Your task to perform on an android device: Open calendar and show me the fourth week of next month Image 0: 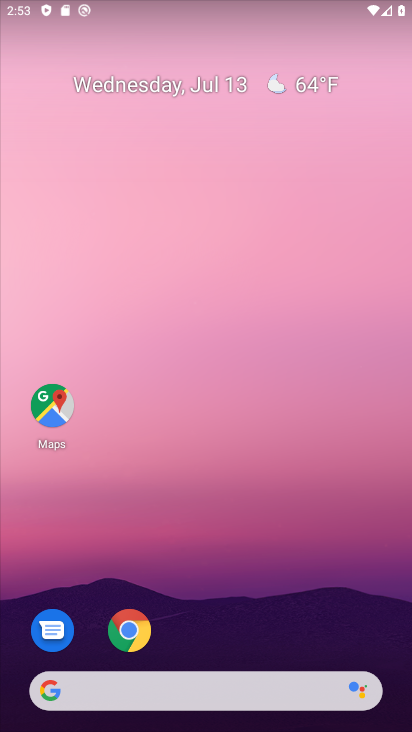
Step 0: drag from (258, 642) to (318, 114)
Your task to perform on an android device: Open calendar and show me the fourth week of next month Image 1: 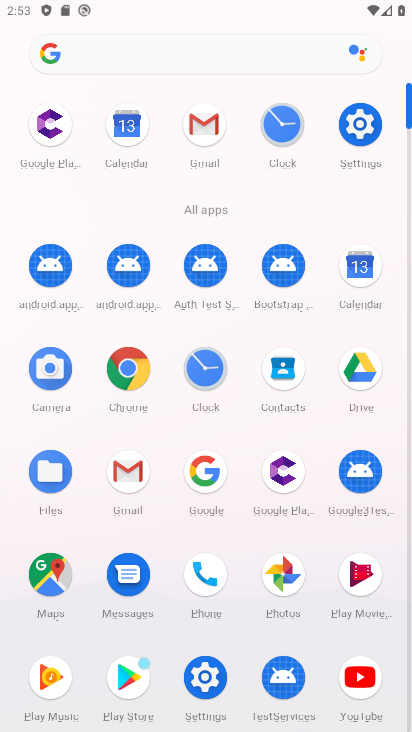
Step 1: click (350, 251)
Your task to perform on an android device: Open calendar and show me the fourth week of next month Image 2: 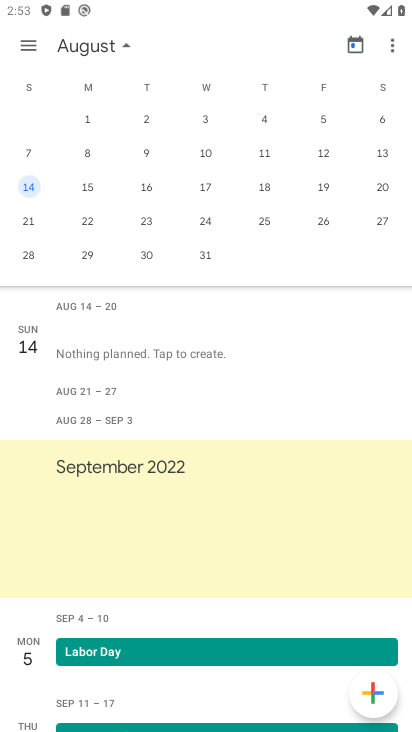
Step 2: click (33, 223)
Your task to perform on an android device: Open calendar and show me the fourth week of next month Image 3: 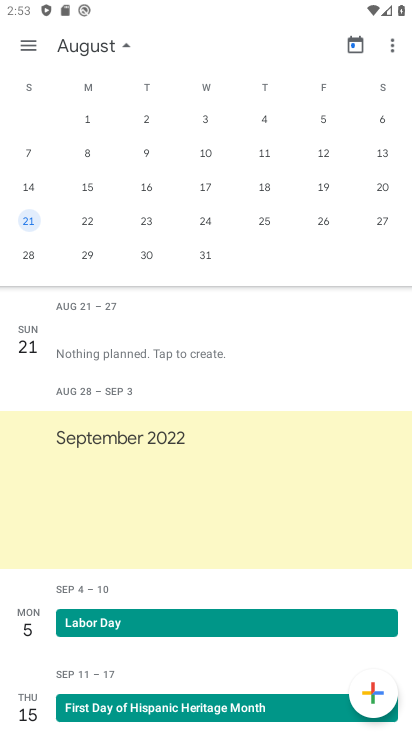
Step 3: task complete